Your task to perform on an android device: Show me productivity apps on the Play Store Image 0: 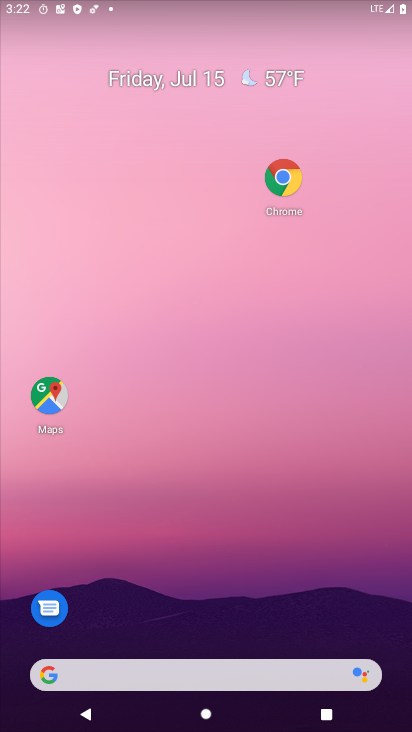
Step 0: drag from (181, 572) to (238, 99)
Your task to perform on an android device: Show me productivity apps on the Play Store Image 1: 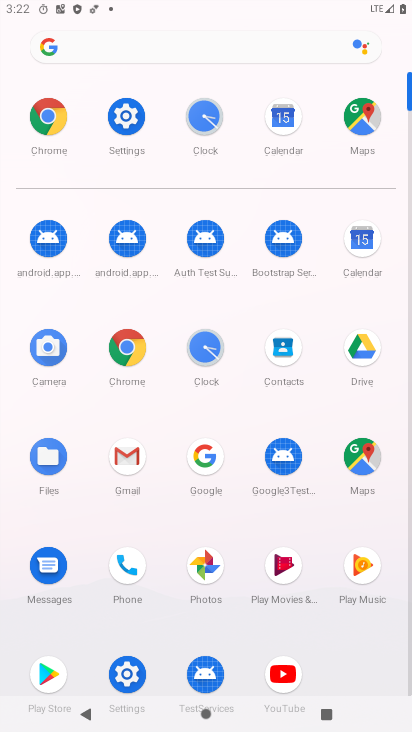
Step 1: click (62, 689)
Your task to perform on an android device: Show me productivity apps on the Play Store Image 2: 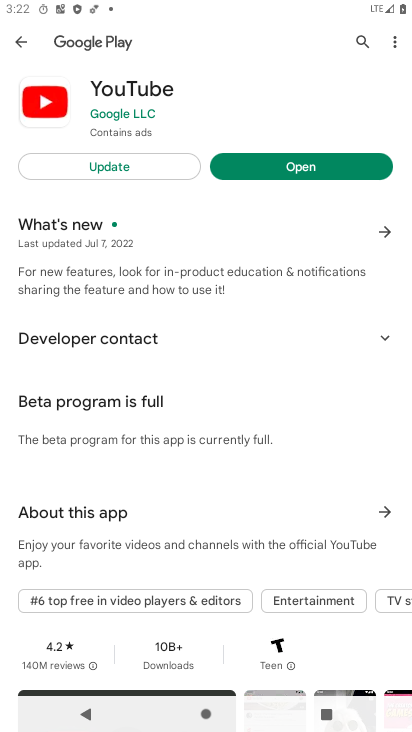
Step 2: click (351, 42)
Your task to perform on an android device: Show me productivity apps on the Play Store Image 3: 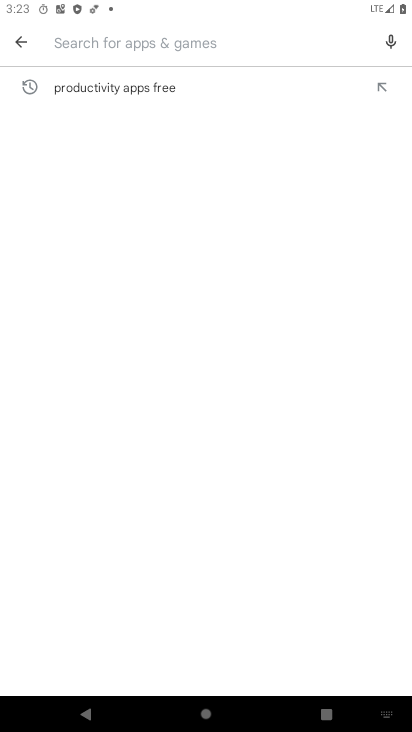
Step 3: type "productivity apps "
Your task to perform on an android device: Show me productivity apps on the Play Store Image 4: 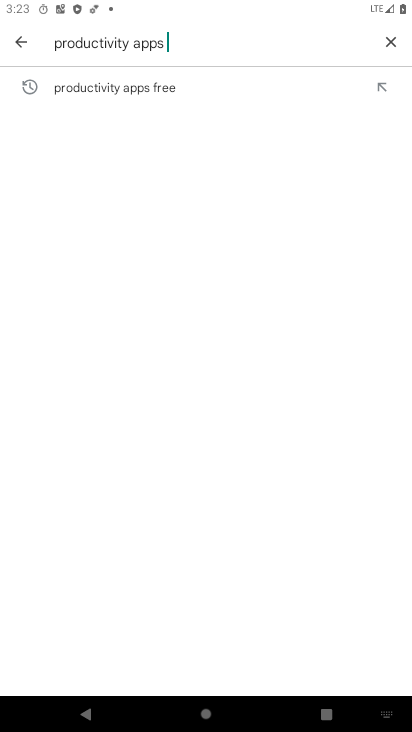
Step 4: type ""
Your task to perform on an android device: Show me productivity apps on the Play Store Image 5: 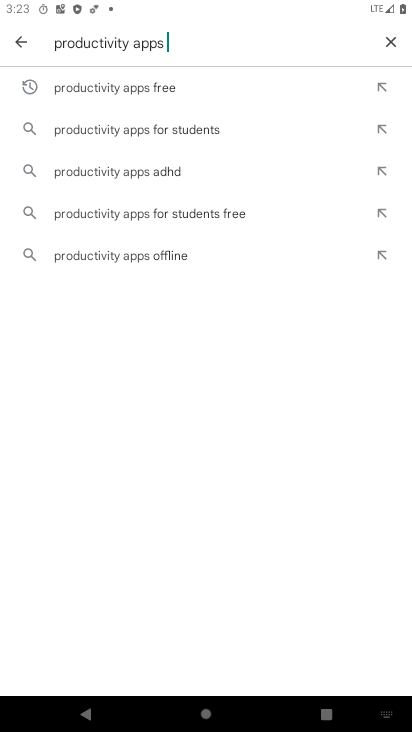
Step 5: click (109, 93)
Your task to perform on an android device: Show me productivity apps on the Play Store Image 6: 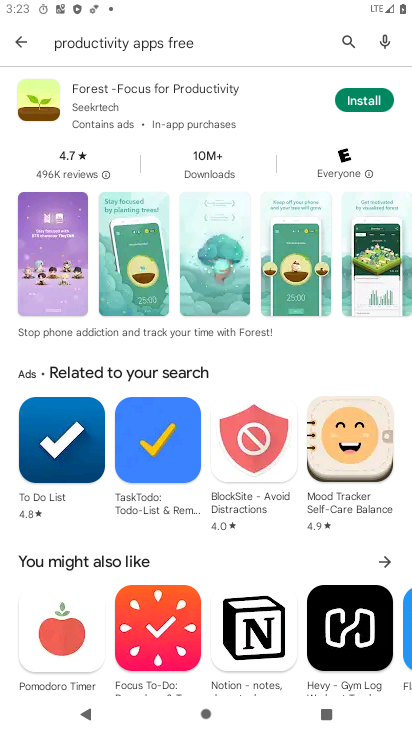
Step 6: task complete